Your task to perform on an android device: Open the calendar and show me this week's events? Image 0: 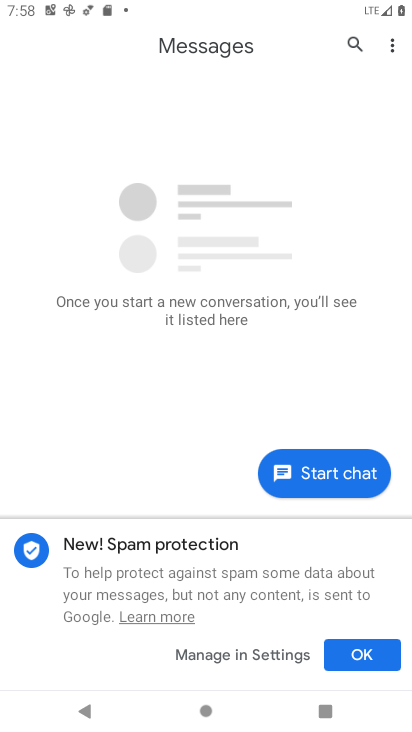
Step 0: press home button
Your task to perform on an android device: Open the calendar and show me this week's events? Image 1: 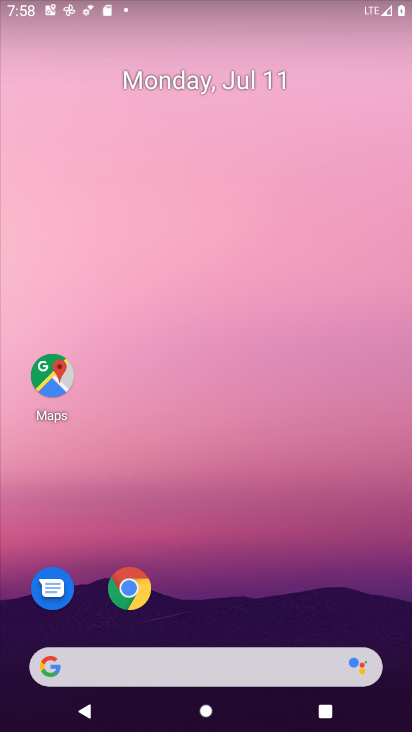
Step 1: drag from (354, 621) to (247, 33)
Your task to perform on an android device: Open the calendar and show me this week's events? Image 2: 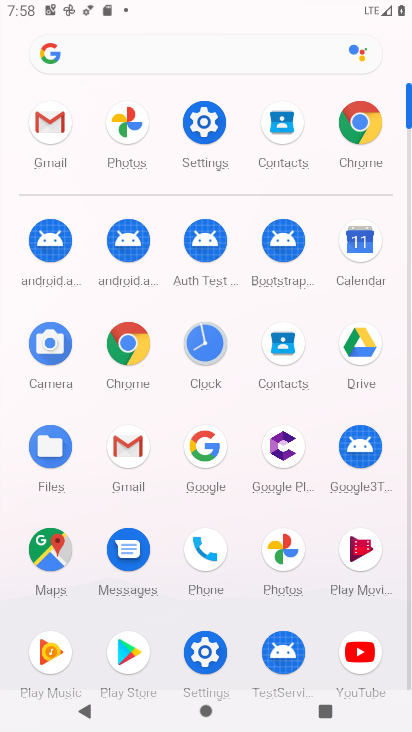
Step 2: click (373, 253)
Your task to perform on an android device: Open the calendar and show me this week's events? Image 3: 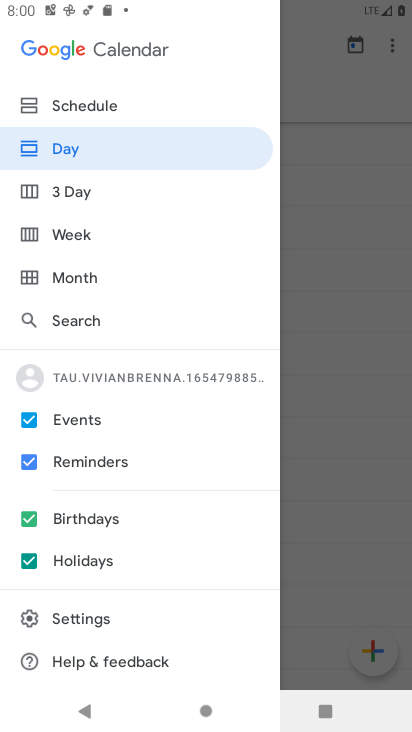
Step 3: task complete